Your task to perform on an android device: What does the iPhone 8 look like? Image 0: 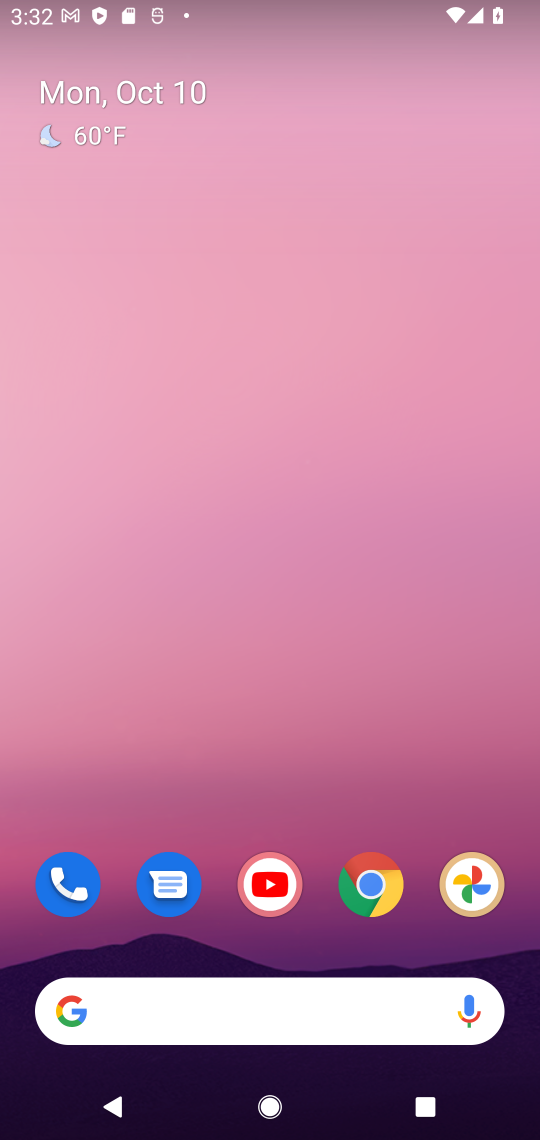
Step 0: click (374, 891)
Your task to perform on an android device: What does the iPhone 8 look like? Image 1: 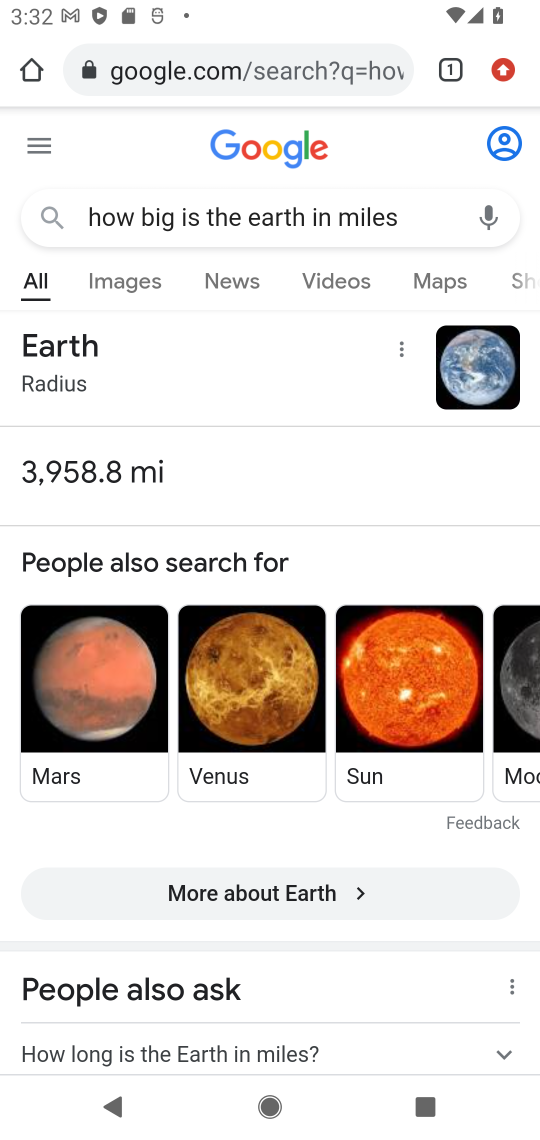
Step 1: click (246, 221)
Your task to perform on an android device: What does the iPhone 8 look like? Image 2: 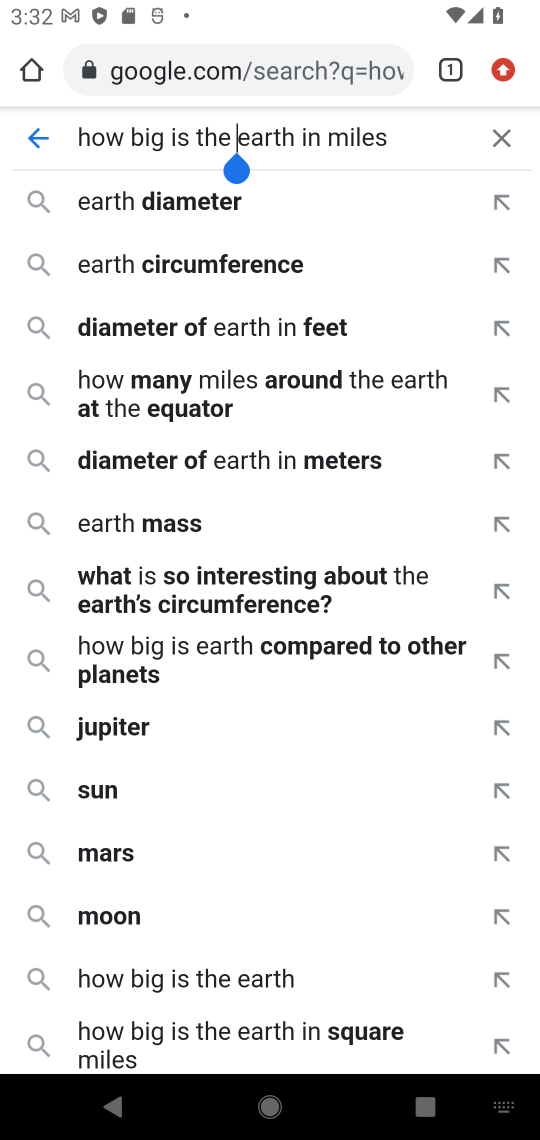
Step 2: click (495, 151)
Your task to perform on an android device: What does the iPhone 8 look like? Image 3: 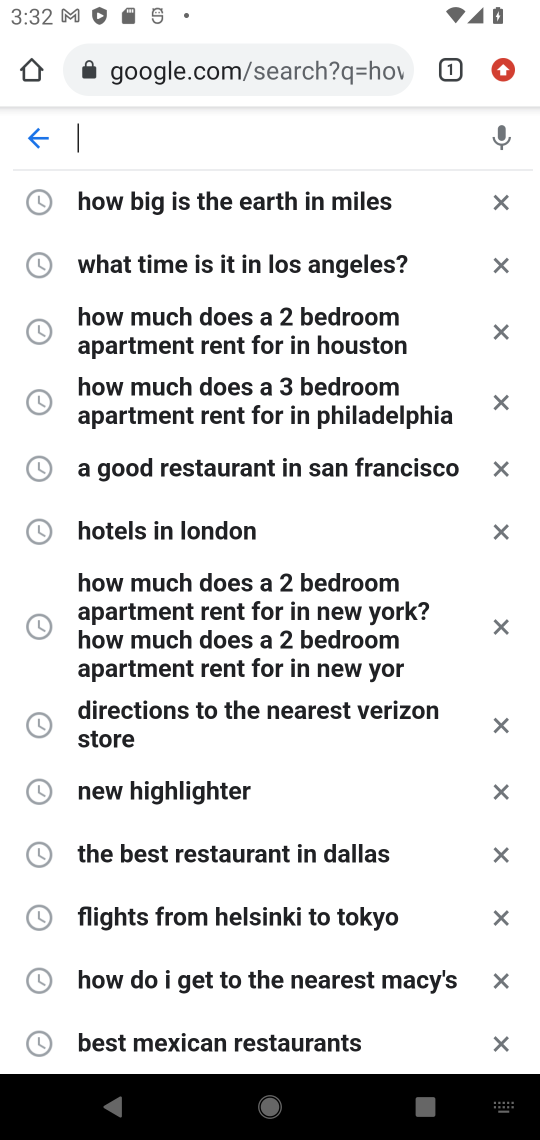
Step 3: type "What does the iPhone 8 look like"
Your task to perform on an android device: What does the iPhone 8 look like? Image 4: 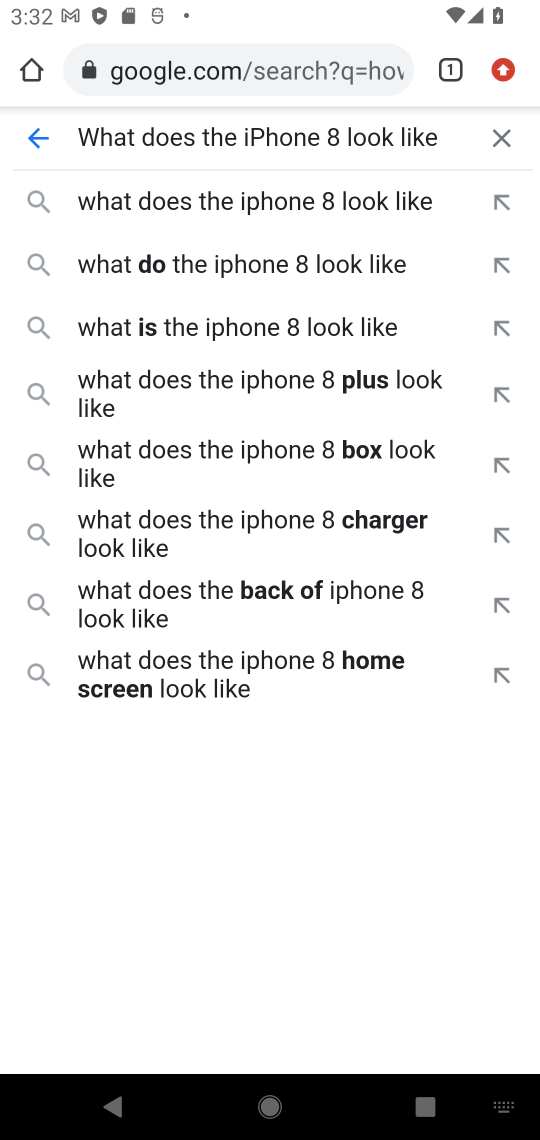
Step 4: click (227, 211)
Your task to perform on an android device: What does the iPhone 8 look like? Image 5: 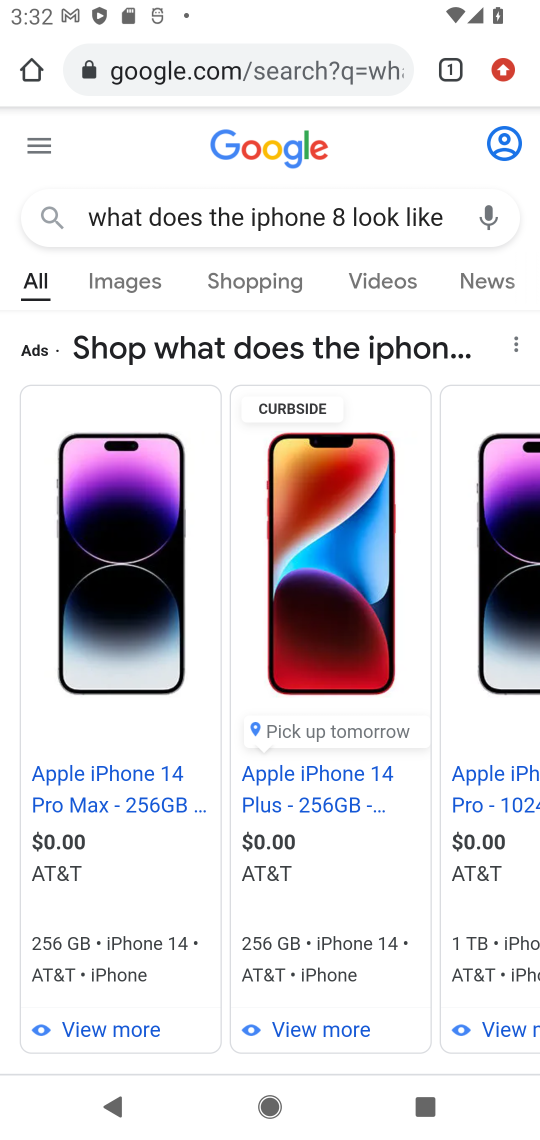
Step 5: task complete